Your task to perform on an android device: When is my next meeting? Image 0: 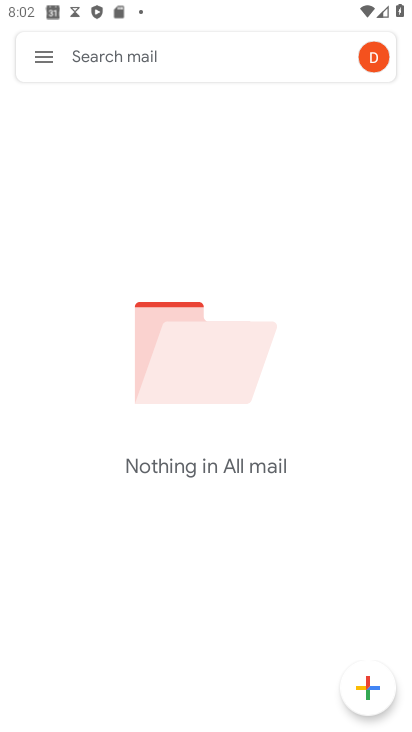
Step 0: press home button
Your task to perform on an android device: When is my next meeting? Image 1: 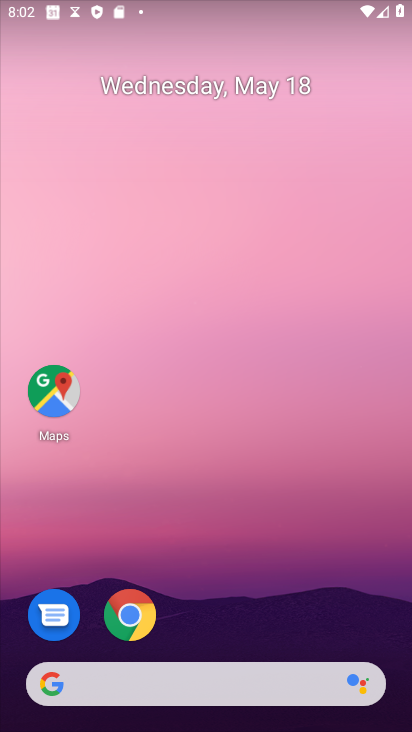
Step 1: click (219, 78)
Your task to perform on an android device: When is my next meeting? Image 2: 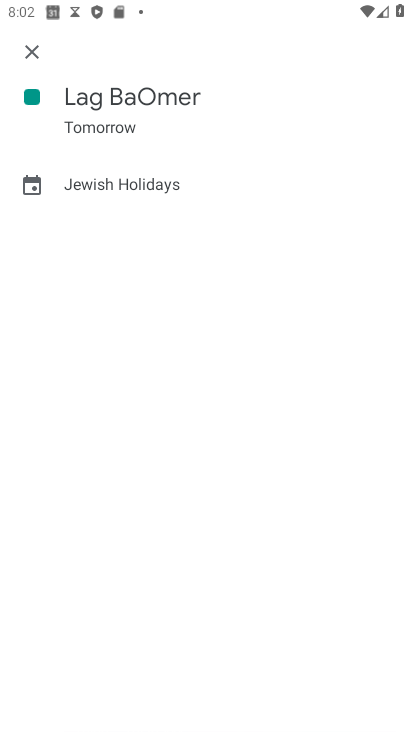
Step 2: click (35, 52)
Your task to perform on an android device: When is my next meeting? Image 3: 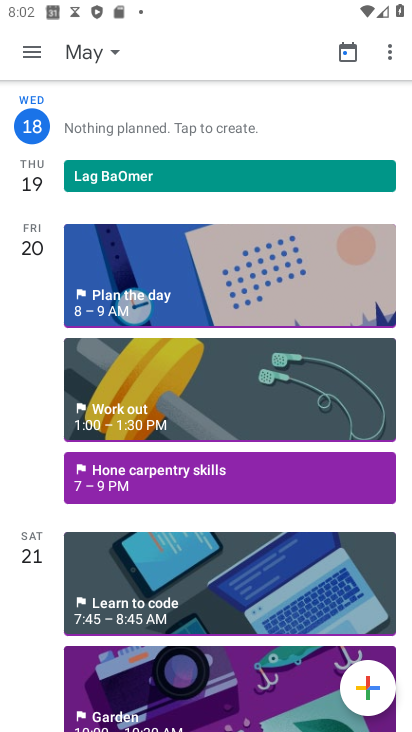
Step 3: click (132, 181)
Your task to perform on an android device: When is my next meeting? Image 4: 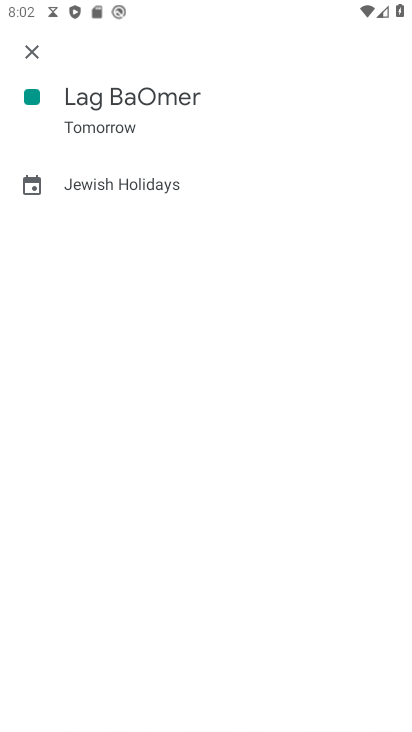
Step 4: task complete